Your task to perform on an android device: stop showing notifications on the lock screen Image 0: 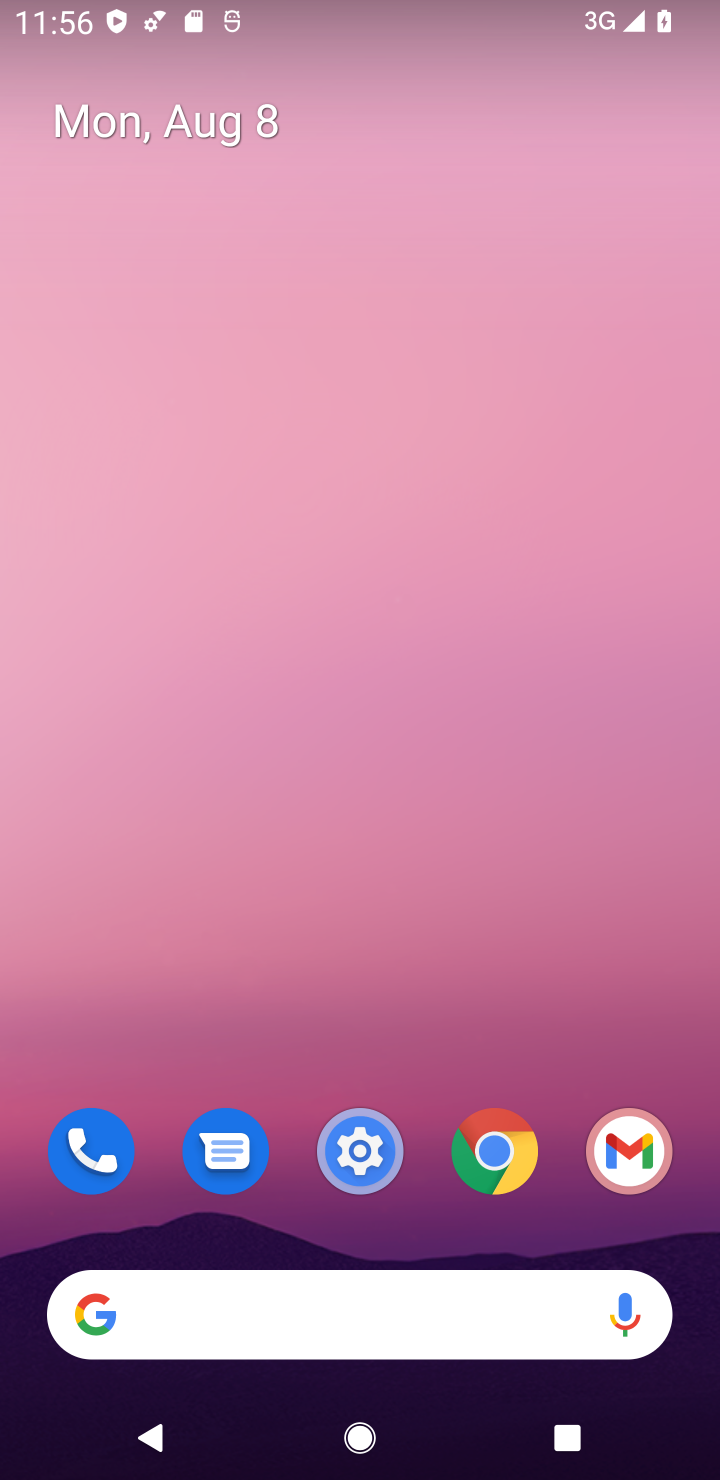
Step 0: drag from (303, 1263) to (197, 460)
Your task to perform on an android device: stop showing notifications on the lock screen Image 1: 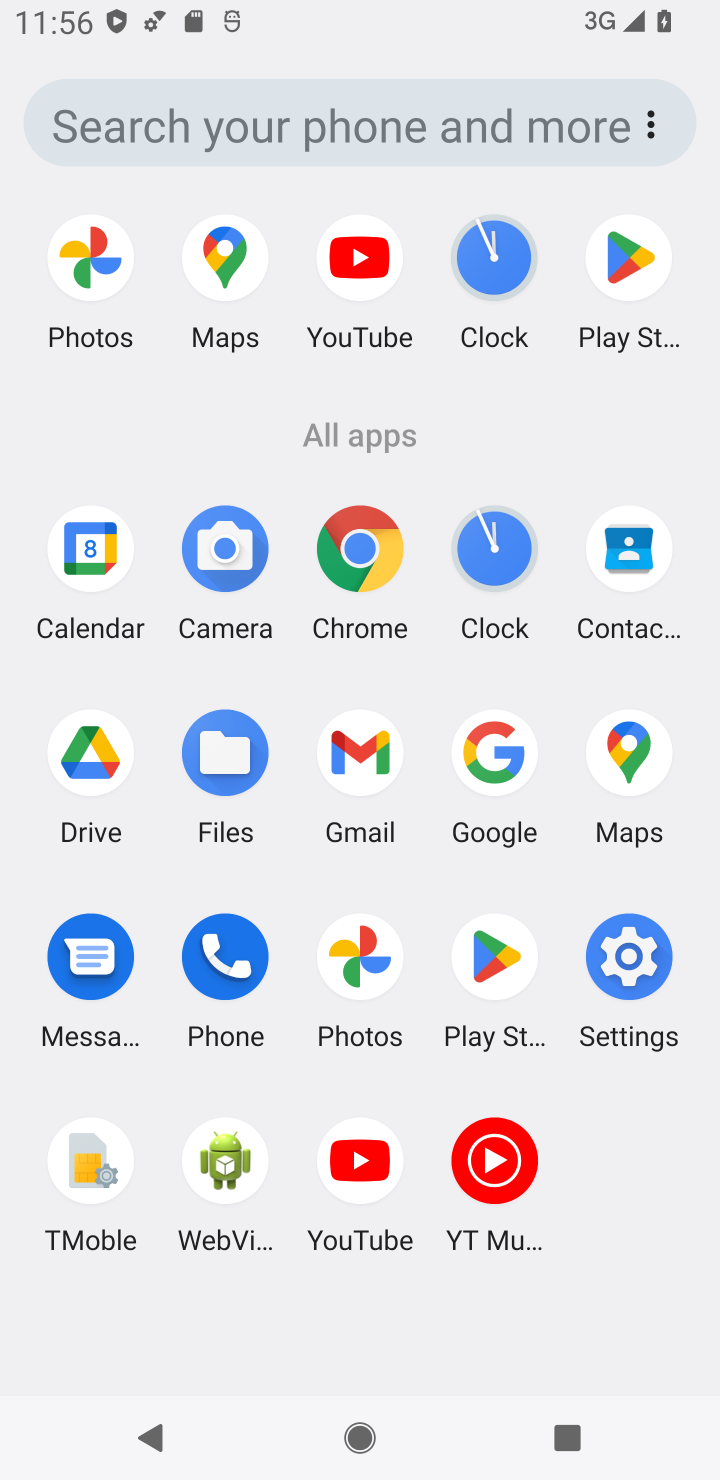
Step 1: click (612, 974)
Your task to perform on an android device: stop showing notifications on the lock screen Image 2: 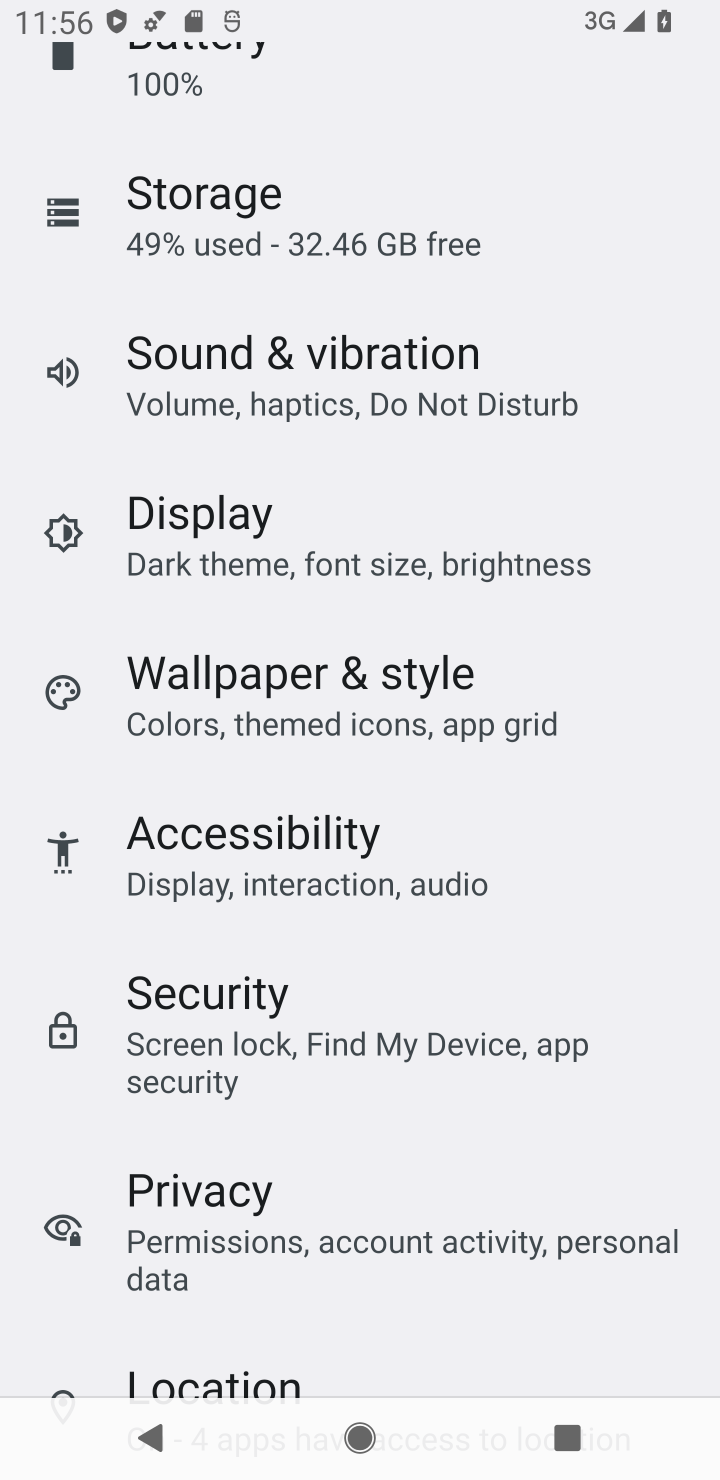
Step 2: click (197, 1255)
Your task to perform on an android device: stop showing notifications on the lock screen Image 3: 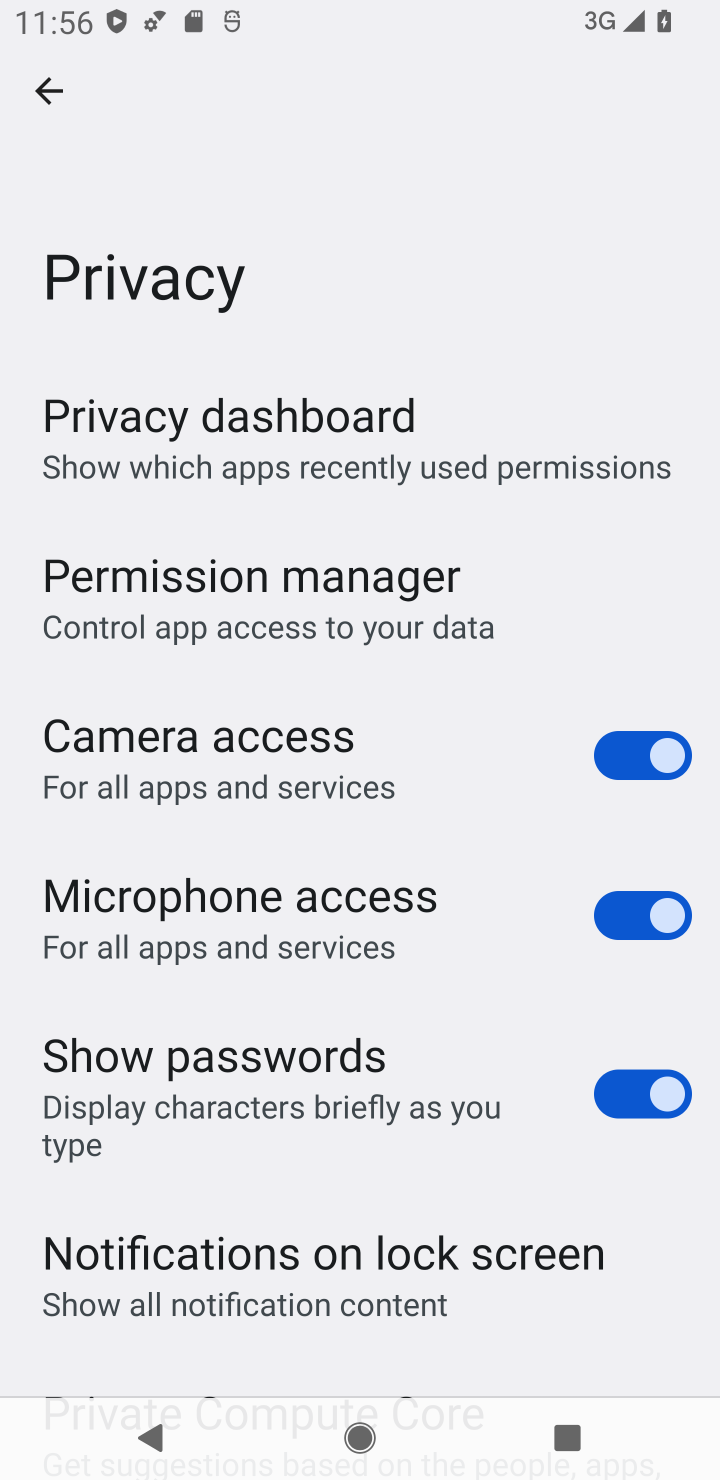
Step 3: click (241, 1286)
Your task to perform on an android device: stop showing notifications on the lock screen Image 4: 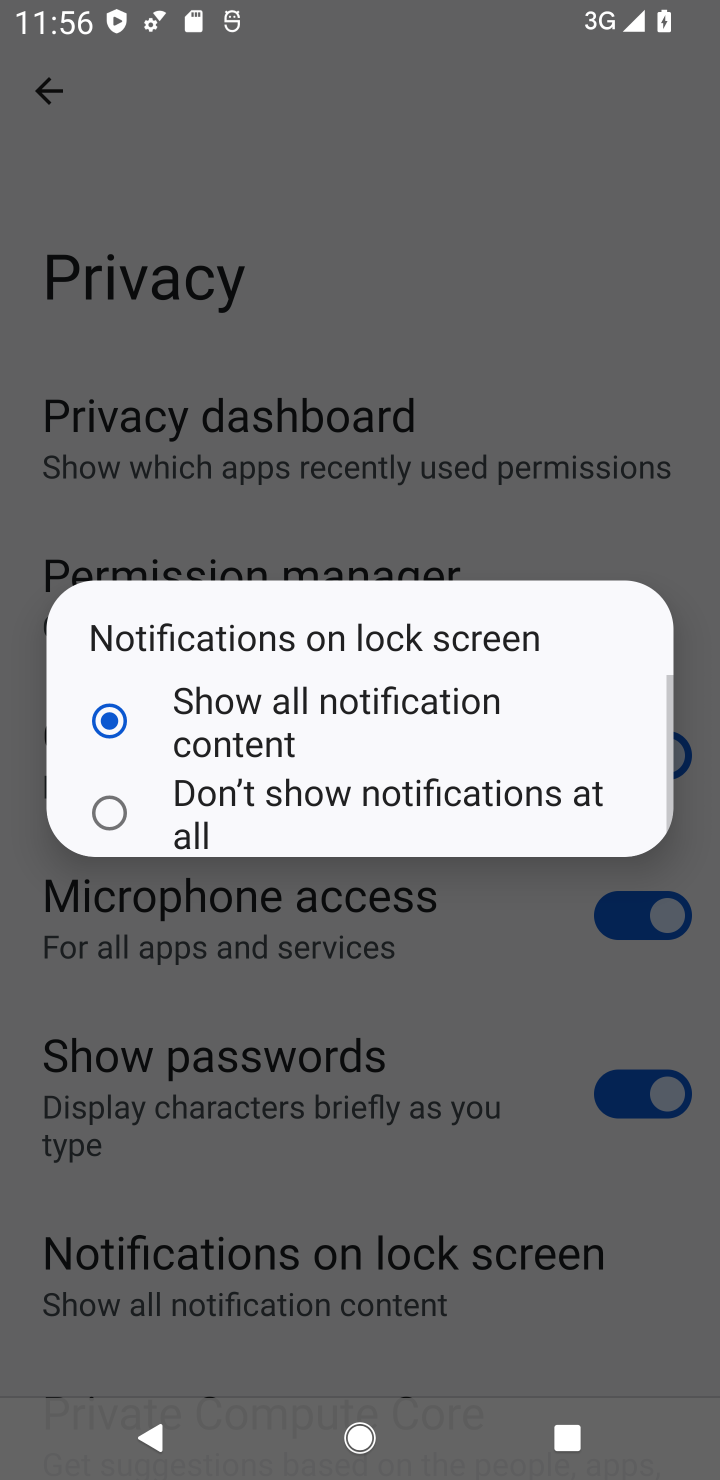
Step 4: click (184, 797)
Your task to perform on an android device: stop showing notifications on the lock screen Image 5: 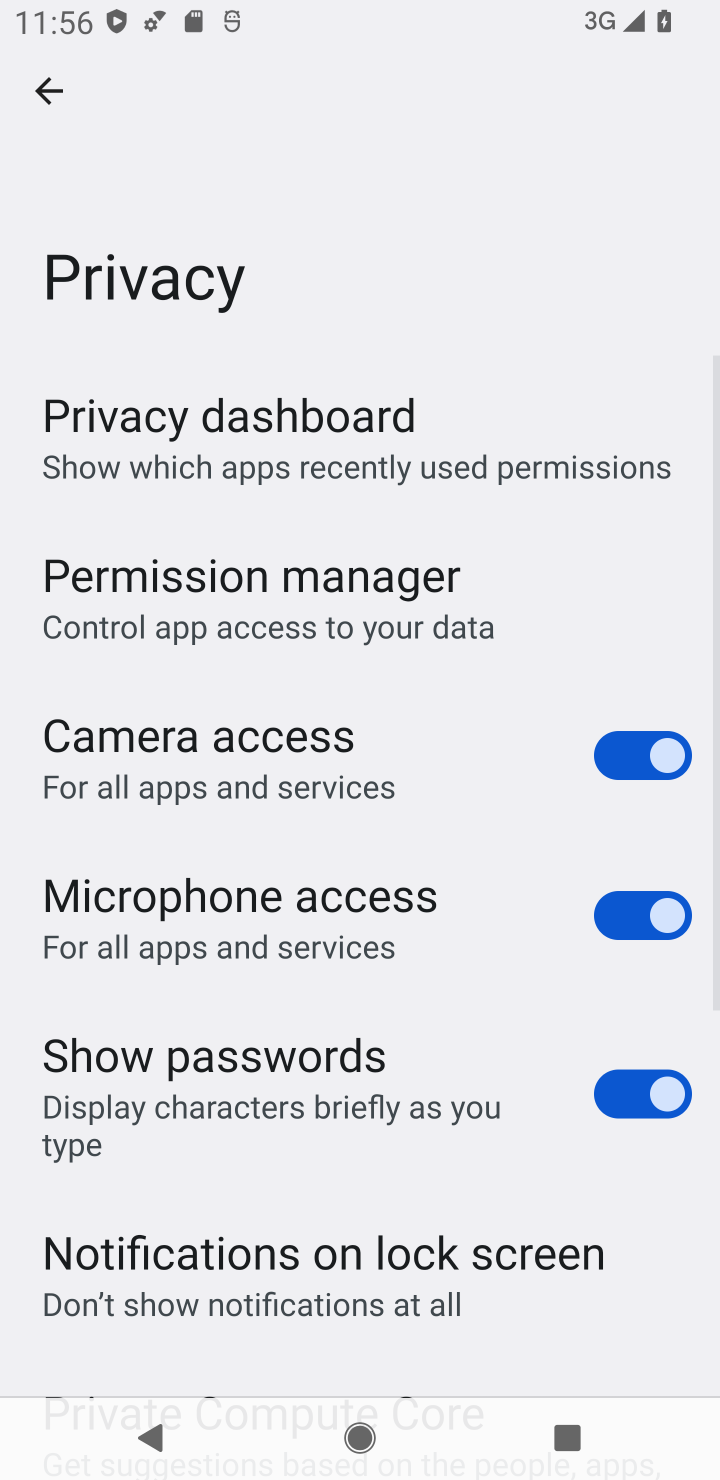
Step 5: task complete